Your task to perform on an android device: toggle show notifications on the lock screen Image 0: 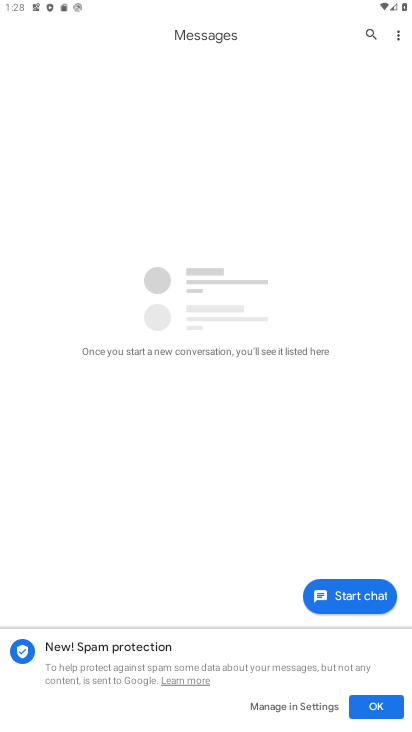
Step 0: press home button
Your task to perform on an android device: toggle show notifications on the lock screen Image 1: 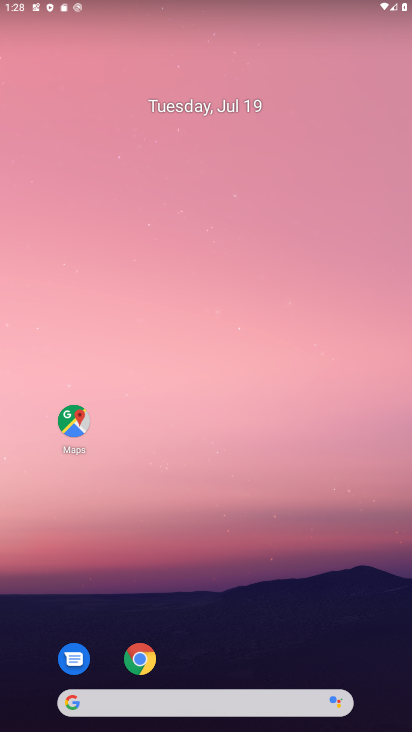
Step 1: drag from (296, 668) to (258, 155)
Your task to perform on an android device: toggle show notifications on the lock screen Image 2: 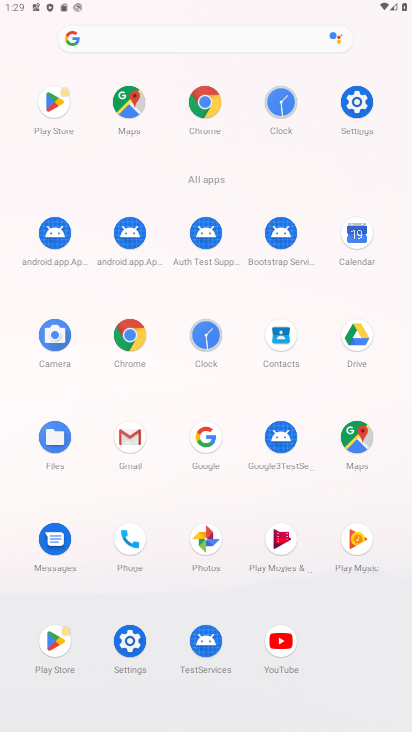
Step 2: click (345, 122)
Your task to perform on an android device: toggle show notifications on the lock screen Image 3: 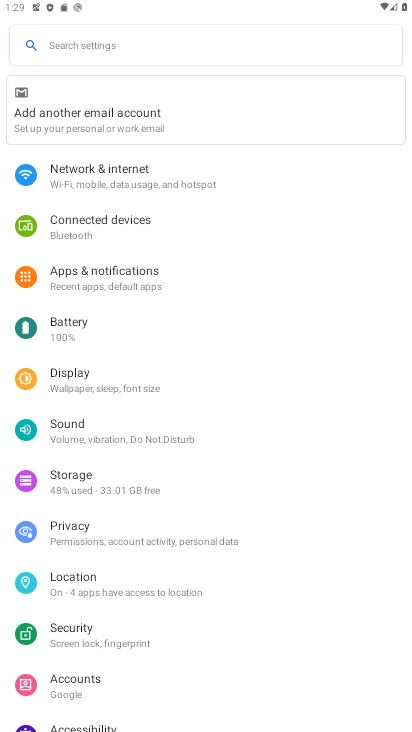
Step 3: click (87, 292)
Your task to perform on an android device: toggle show notifications on the lock screen Image 4: 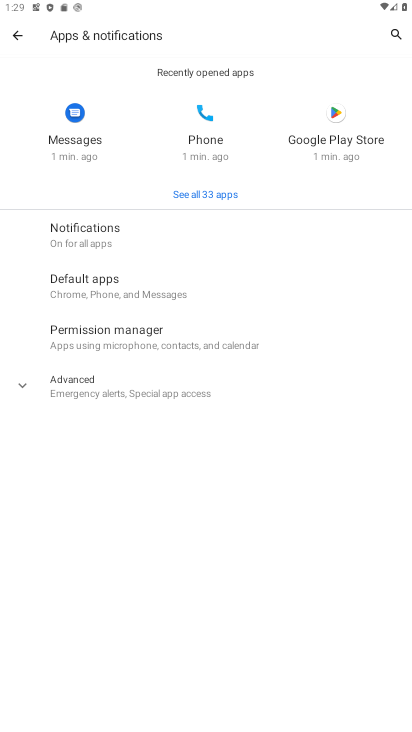
Step 4: click (106, 247)
Your task to perform on an android device: toggle show notifications on the lock screen Image 5: 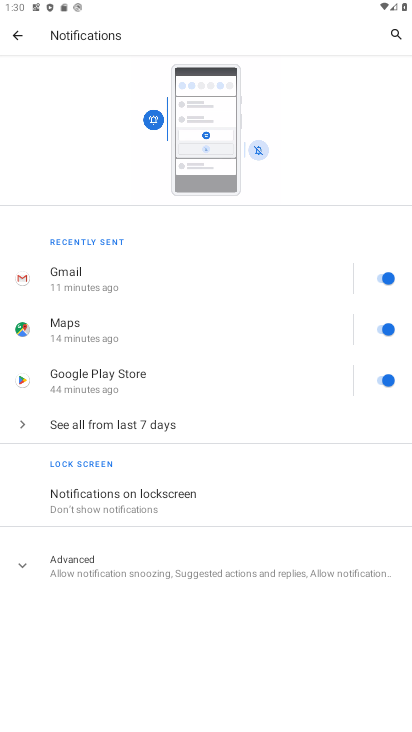
Step 5: click (149, 488)
Your task to perform on an android device: toggle show notifications on the lock screen Image 6: 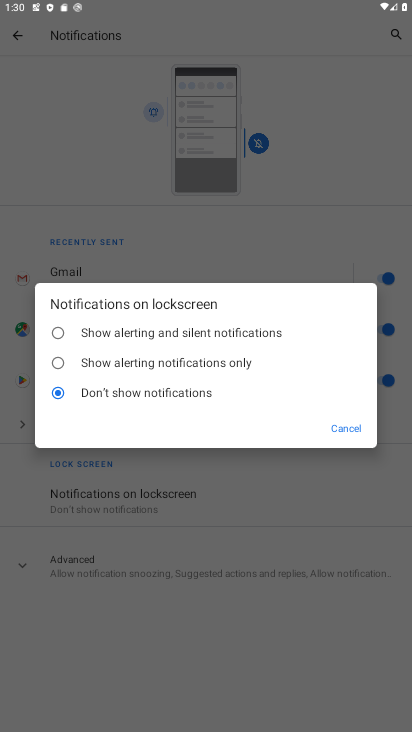
Step 6: click (131, 336)
Your task to perform on an android device: toggle show notifications on the lock screen Image 7: 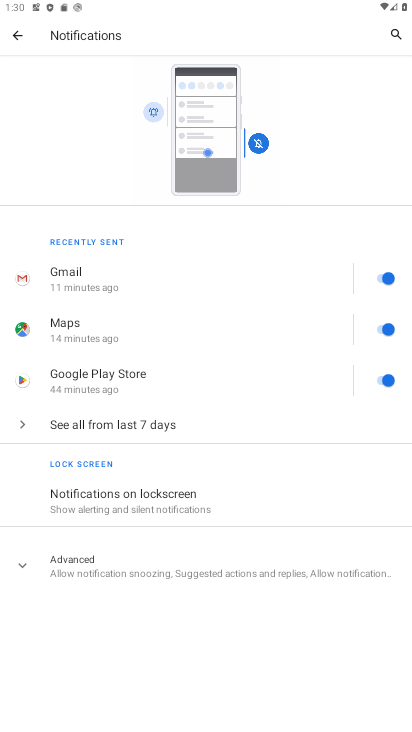
Step 7: task complete